Your task to perform on an android device: turn off priority inbox in the gmail app Image 0: 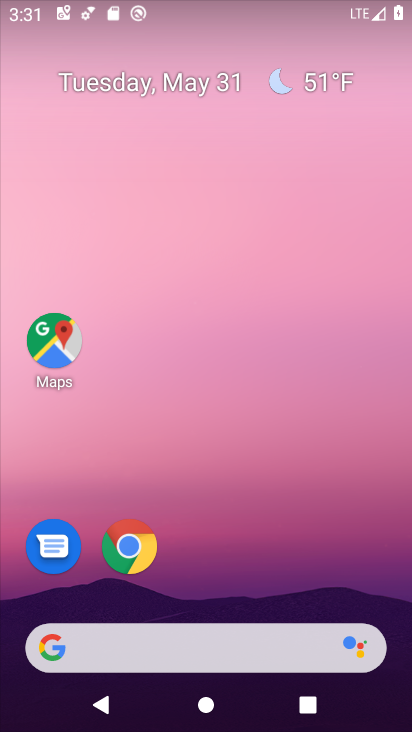
Step 0: press home button
Your task to perform on an android device: turn off priority inbox in the gmail app Image 1: 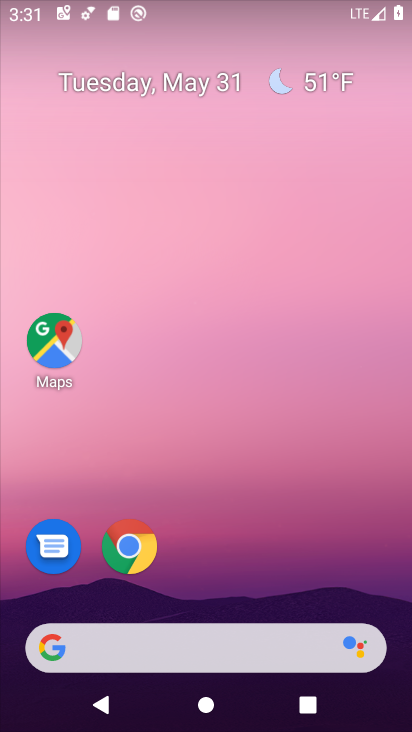
Step 1: drag from (280, 527) to (193, 27)
Your task to perform on an android device: turn off priority inbox in the gmail app Image 2: 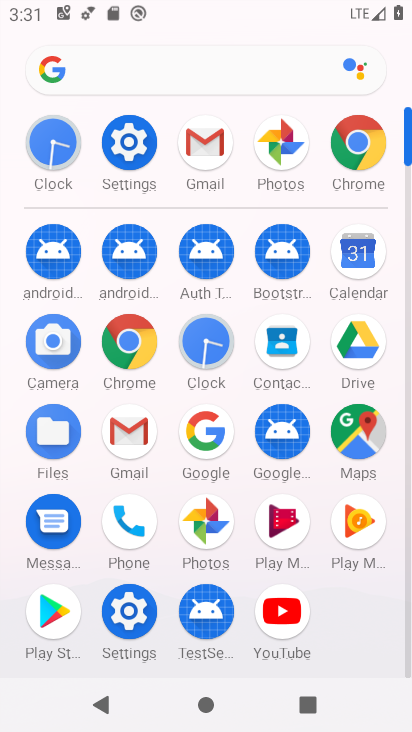
Step 2: click (193, 149)
Your task to perform on an android device: turn off priority inbox in the gmail app Image 3: 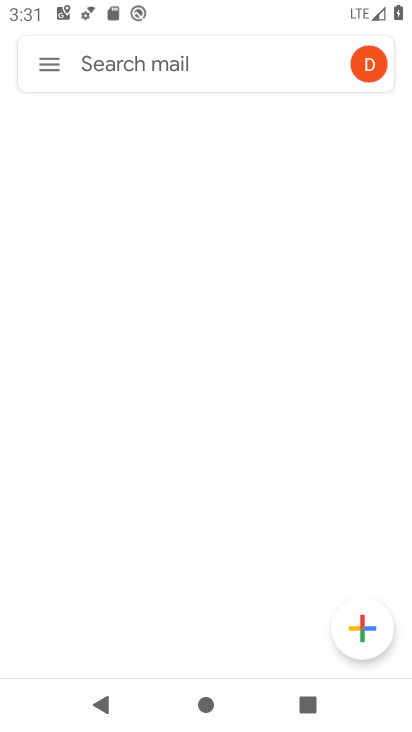
Step 3: click (48, 51)
Your task to perform on an android device: turn off priority inbox in the gmail app Image 4: 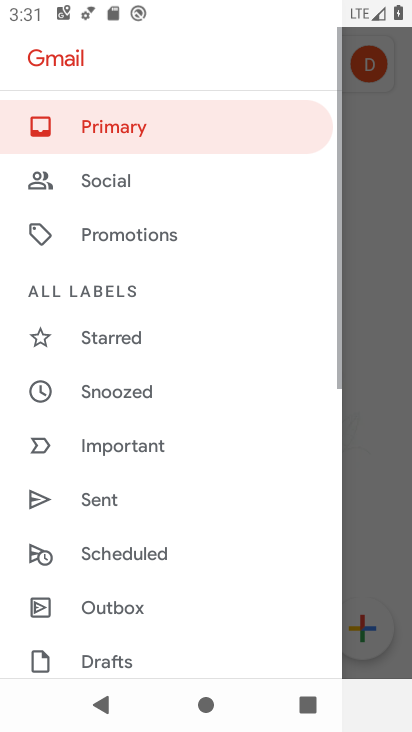
Step 4: drag from (308, 571) to (256, 160)
Your task to perform on an android device: turn off priority inbox in the gmail app Image 5: 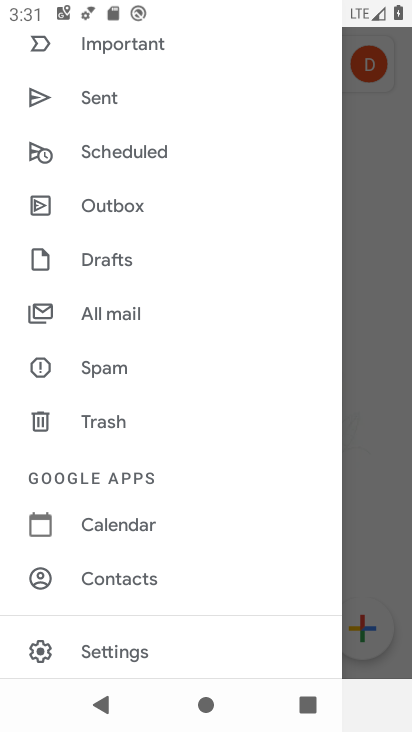
Step 5: click (187, 636)
Your task to perform on an android device: turn off priority inbox in the gmail app Image 6: 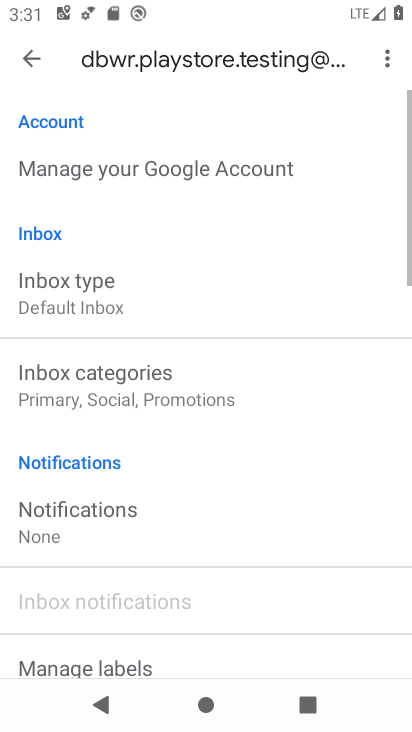
Step 6: click (132, 295)
Your task to perform on an android device: turn off priority inbox in the gmail app Image 7: 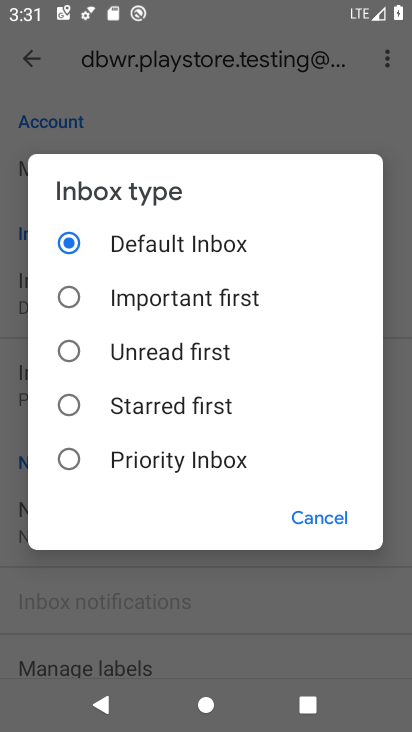
Step 7: task complete